Your task to perform on an android device: Show me recent news Image 0: 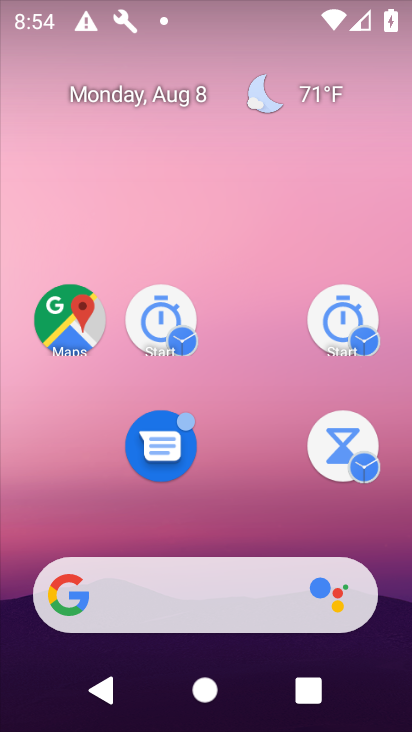
Step 0: click (270, 243)
Your task to perform on an android device: Show me recent news Image 1: 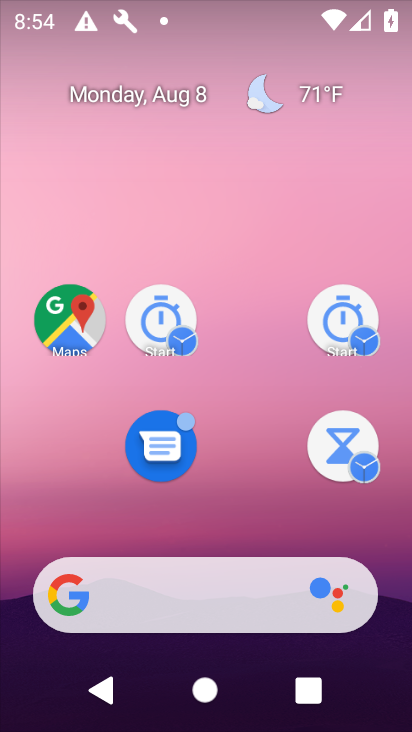
Step 1: drag from (269, 479) to (271, 210)
Your task to perform on an android device: Show me recent news Image 2: 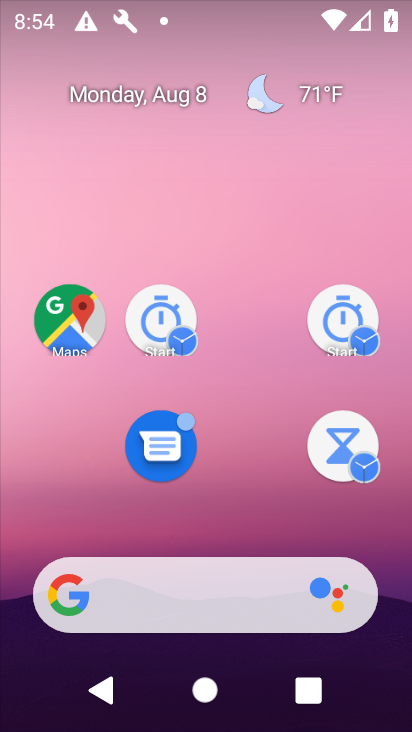
Step 2: drag from (252, 489) to (240, 242)
Your task to perform on an android device: Show me recent news Image 3: 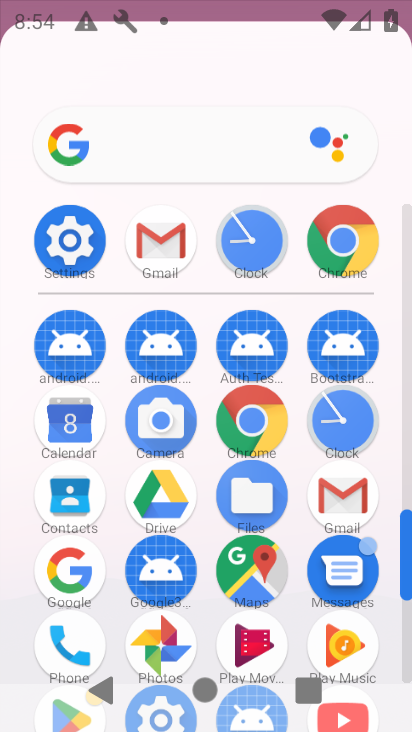
Step 3: drag from (258, 511) to (234, 22)
Your task to perform on an android device: Show me recent news Image 4: 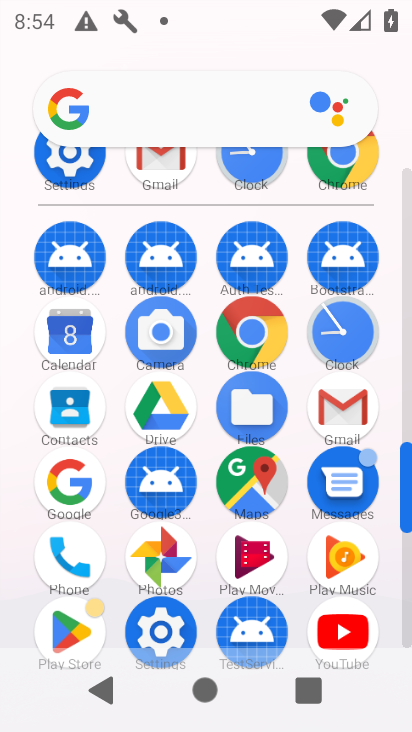
Step 4: click (250, 332)
Your task to perform on an android device: Show me recent news Image 5: 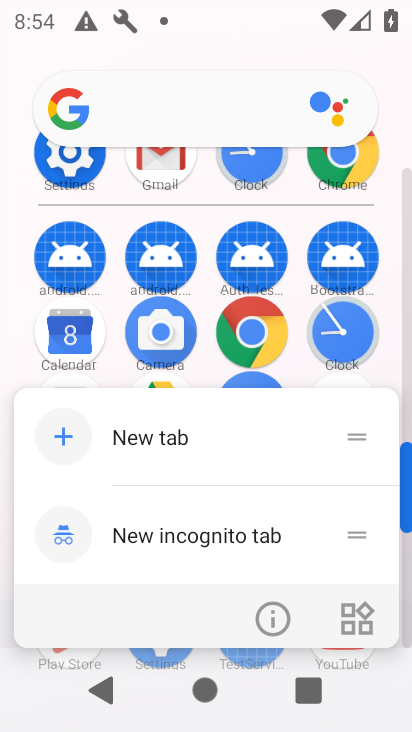
Step 5: click (252, 342)
Your task to perform on an android device: Show me recent news Image 6: 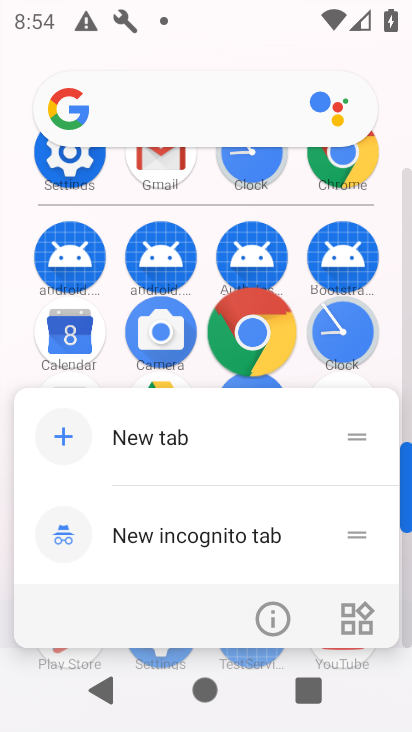
Step 6: click (244, 345)
Your task to perform on an android device: Show me recent news Image 7: 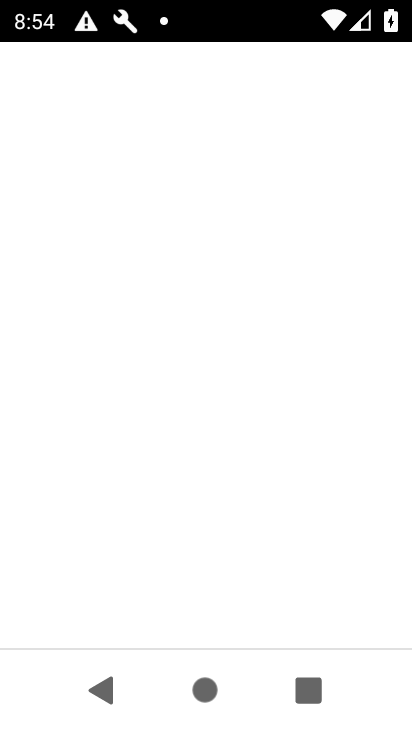
Step 7: click (247, 348)
Your task to perform on an android device: Show me recent news Image 8: 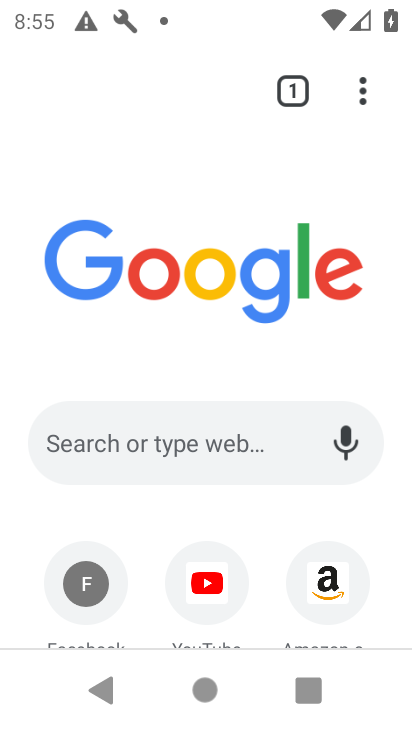
Step 8: drag from (261, 471) to (275, 153)
Your task to perform on an android device: Show me recent news Image 9: 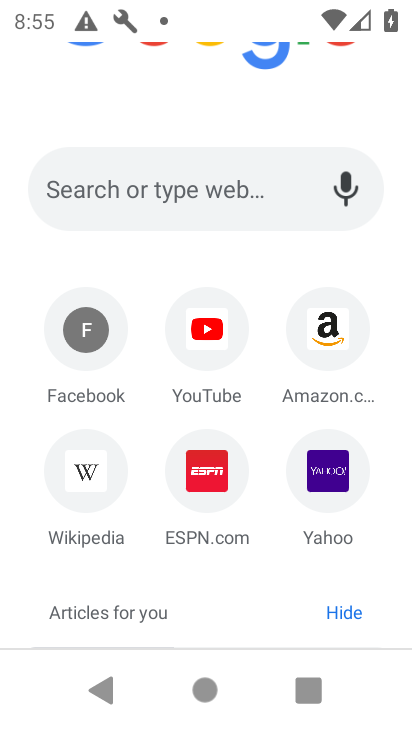
Step 9: drag from (275, 439) to (276, 190)
Your task to perform on an android device: Show me recent news Image 10: 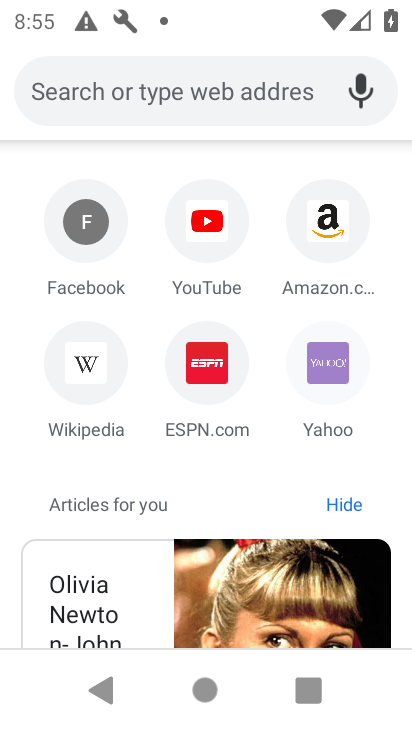
Step 10: drag from (290, 321) to (290, 145)
Your task to perform on an android device: Show me recent news Image 11: 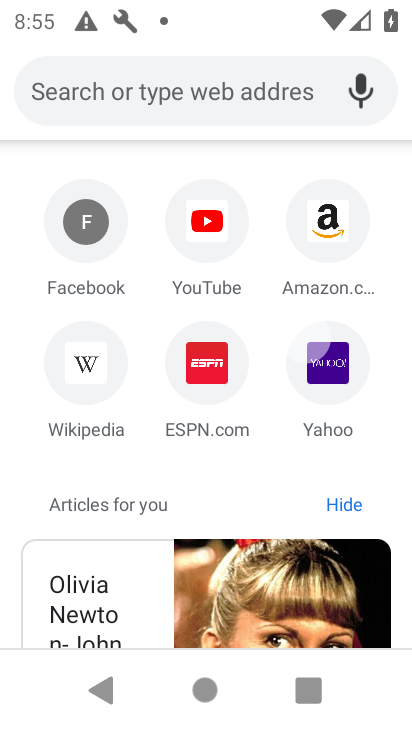
Step 11: drag from (283, 440) to (275, 144)
Your task to perform on an android device: Show me recent news Image 12: 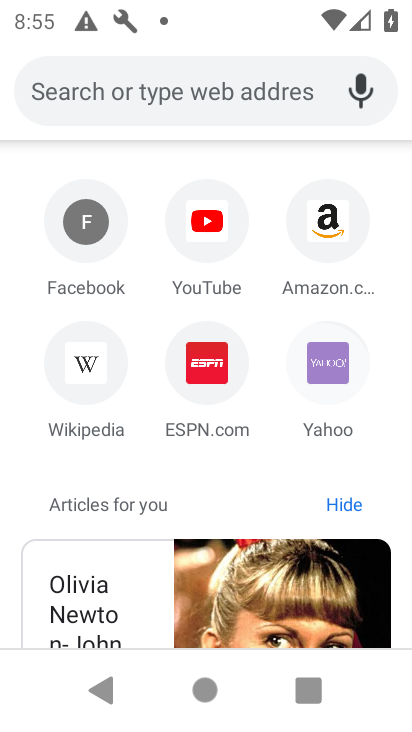
Step 12: drag from (254, 393) to (244, 117)
Your task to perform on an android device: Show me recent news Image 13: 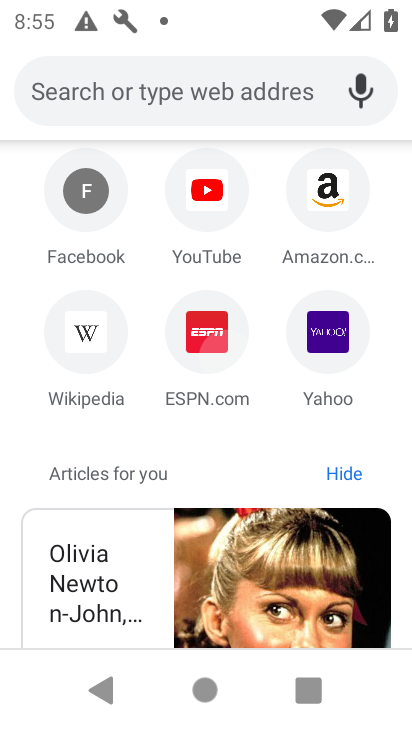
Step 13: drag from (238, 432) to (236, 187)
Your task to perform on an android device: Show me recent news Image 14: 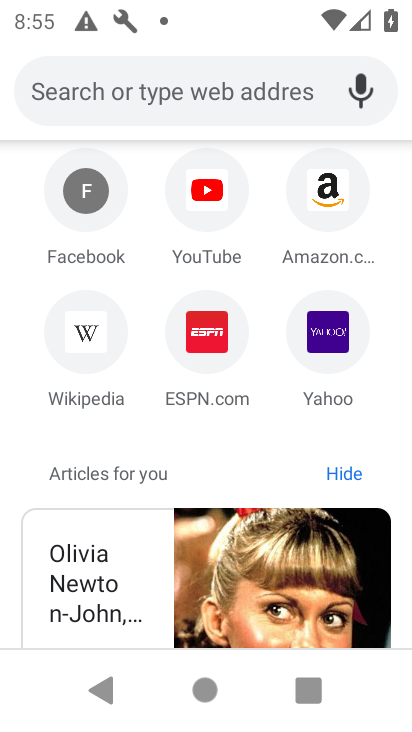
Step 14: drag from (239, 443) to (241, 241)
Your task to perform on an android device: Show me recent news Image 15: 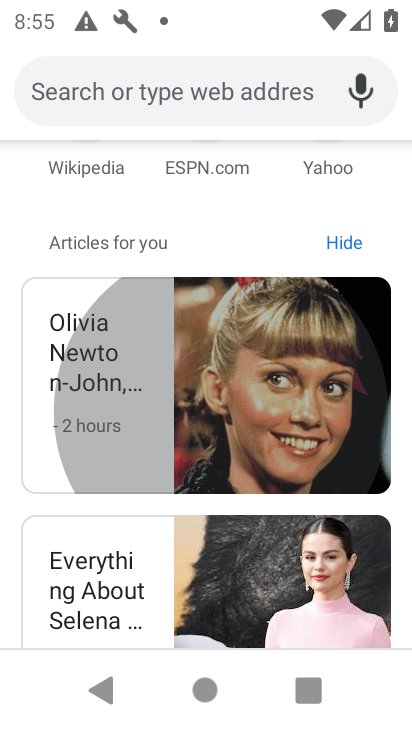
Step 15: click (252, 218)
Your task to perform on an android device: Show me recent news Image 16: 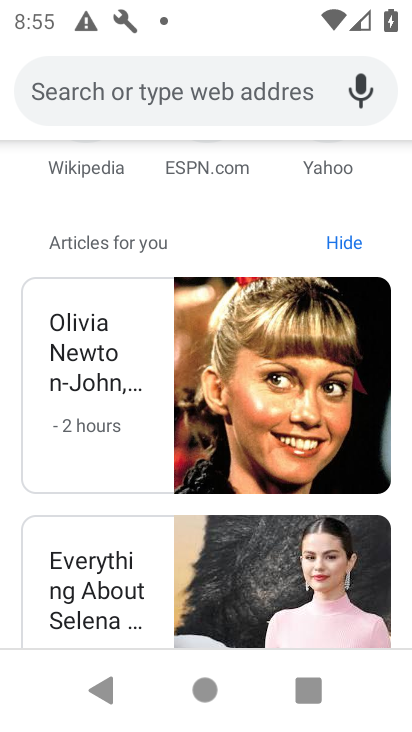
Step 16: drag from (227, 164) to (185, 227)
Your task to perform on an android device: Show me recent news Image 17: 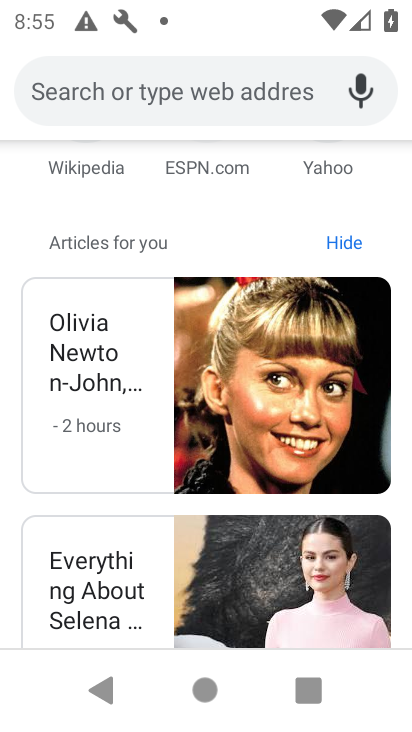
Step 17: drag from (158, 498) to (173, 220)
Your task to perform on an android device: Show me recent news Image 18: 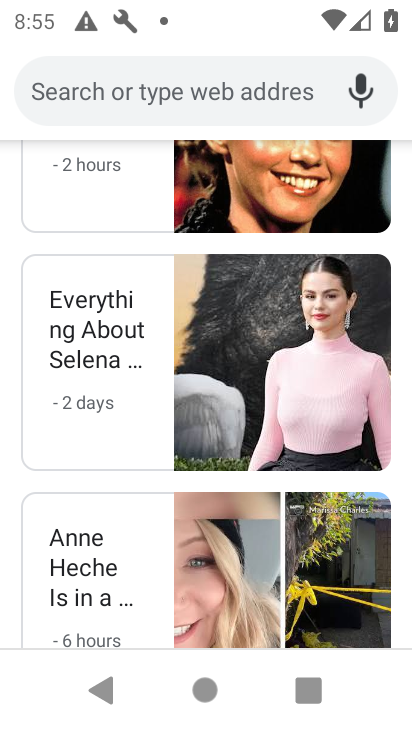
Step 18: drag from (133, 507) to (198, 202)
Your task to perform on an android device: Show me recent news Image 19: 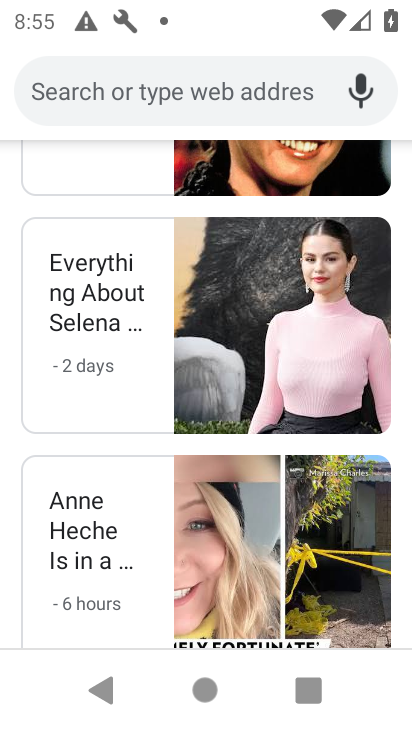
Step 19: click (252, 302)
Your task to perform on an android device: Show me recent news Image 20: 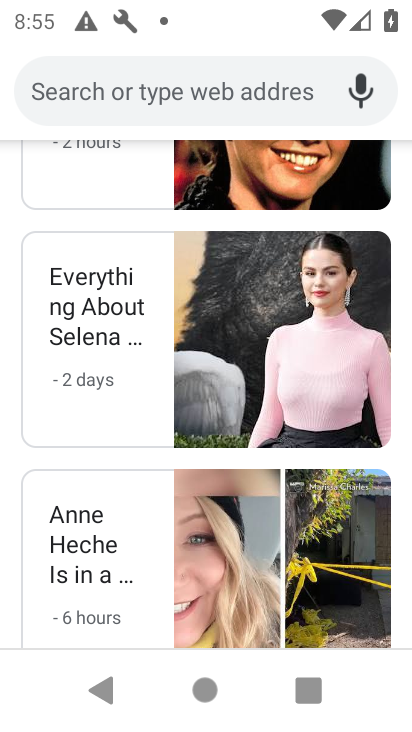
Step 20: drag from (294, 530) to (225, 212)
Your task to perform on an android device: Show me recent news Image 21: 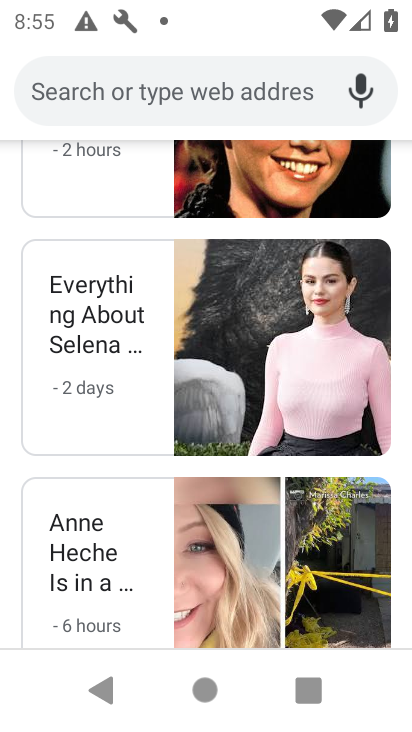
Step 21: drag from (228, 280) to (263, 243)
Your task to perform on an android device: Show me recent news Image 22: 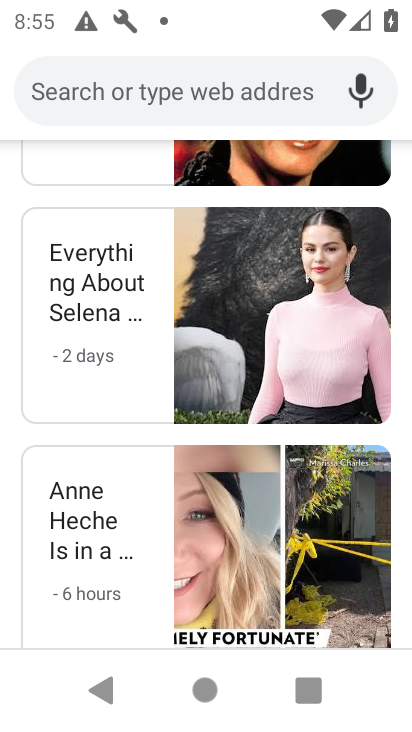
Step 22: drag from (274, 381) to (286, 253)
Your task to perform on an android device: Show me recent news Image 23: 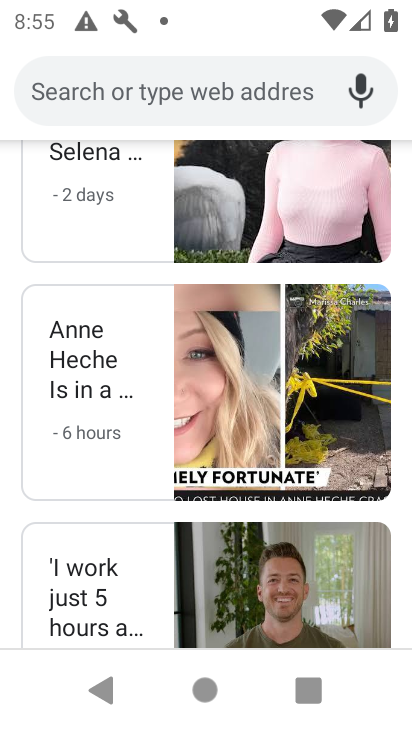
Step 23: drag from (272, 376) to (281, 310)
Your task to perform on an android device: Show me recent news Image 24: 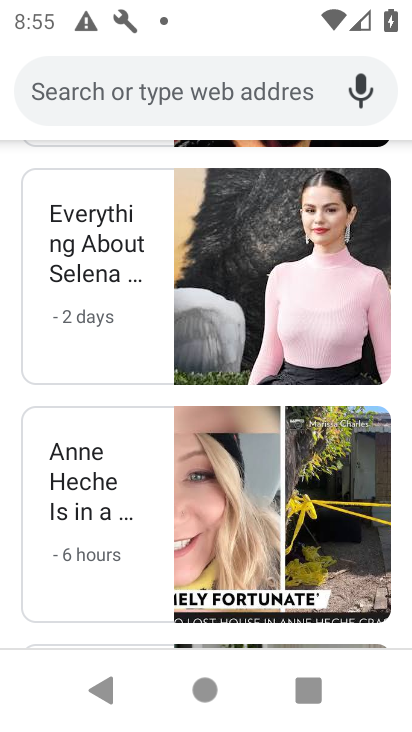
Step 24: drag from (345, 469) to (313, 225)
Your task to perform on an android device: Show me recent news Image 25: 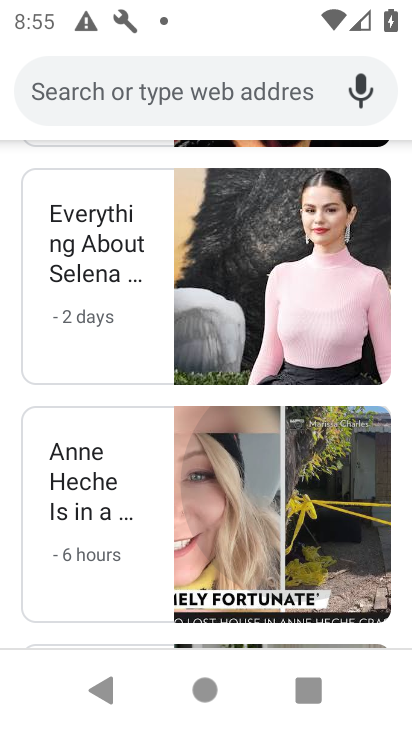
Step 25: drag from (300, 527) to (285, 209)
Your task to perform on an android device: Show me recent news Image 26: 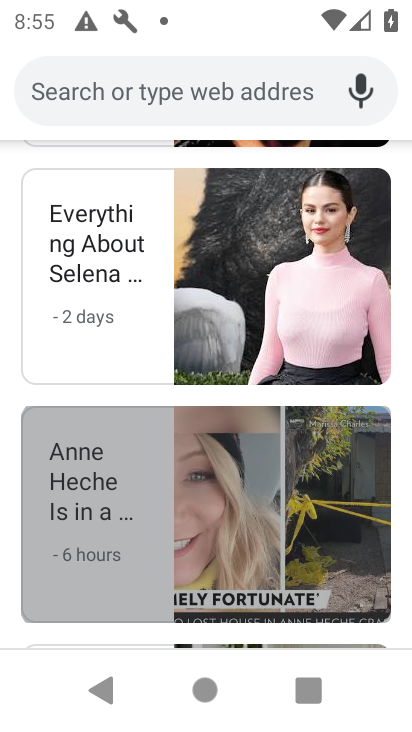
Step 26: drag from (308, 340) to (267, 41)
Your task to perform on an android device: Show me recent news Image 27: 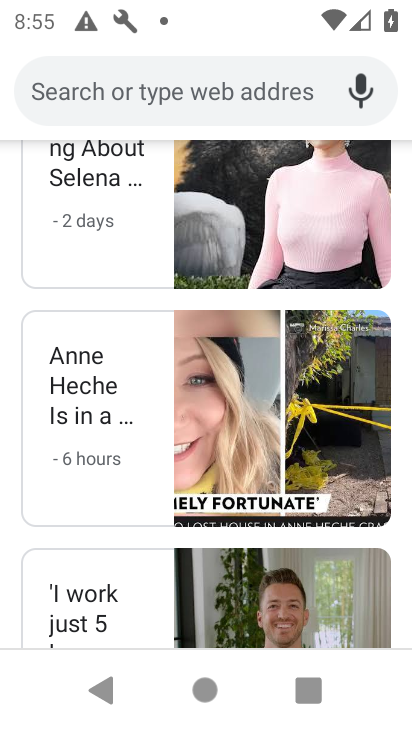
Step 27: click (228, 207)
Your task to perform on an android device: Show me recent news Image 28: 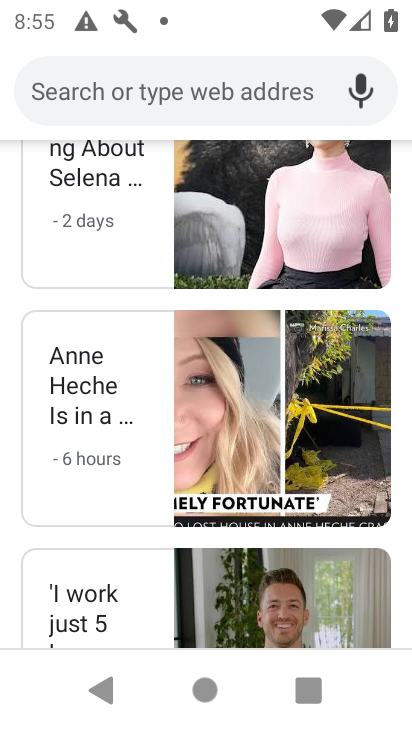
Step 28: drag from (196, 439) to (180, 148)
Your task to perform on an android device: Show me recent news Image 29: 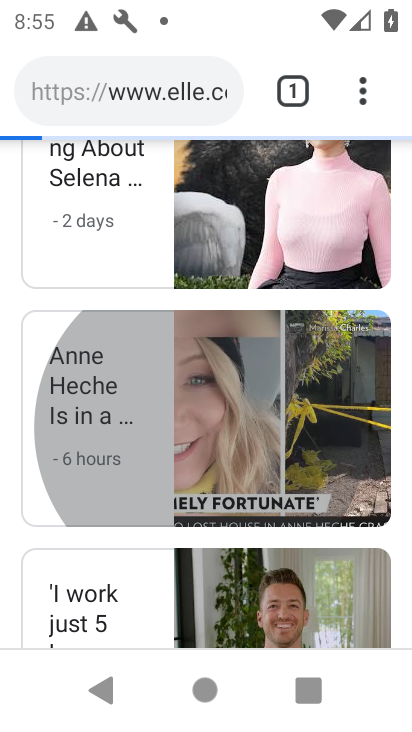
Step 29: click (219, 250)
Your task to perform on an android device: Show me recent news Image 30: 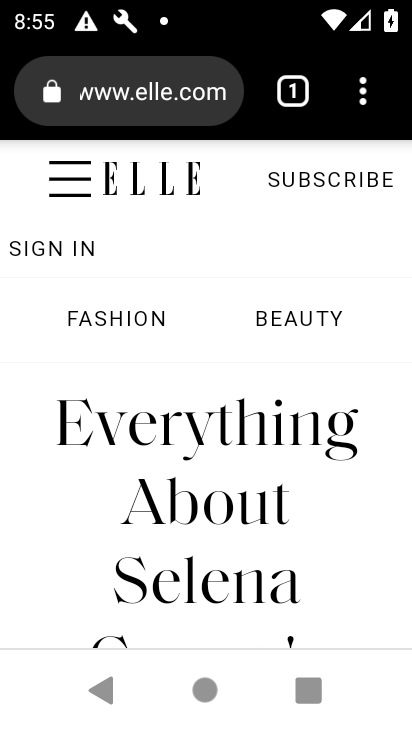
Step 30: task complete